Your task to perform on an android device: turn pop-ups on in chrome Image 0: 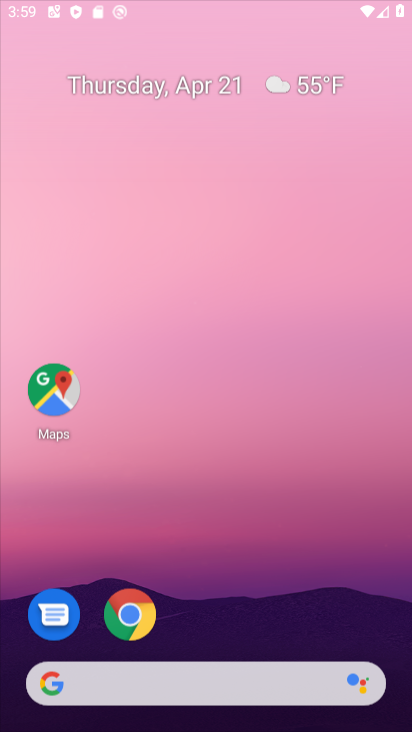
Step 0: drag from (209, 444) to (212, 15)
Your task to perform on an android device: turn pop-ups on in chrome Image 1: 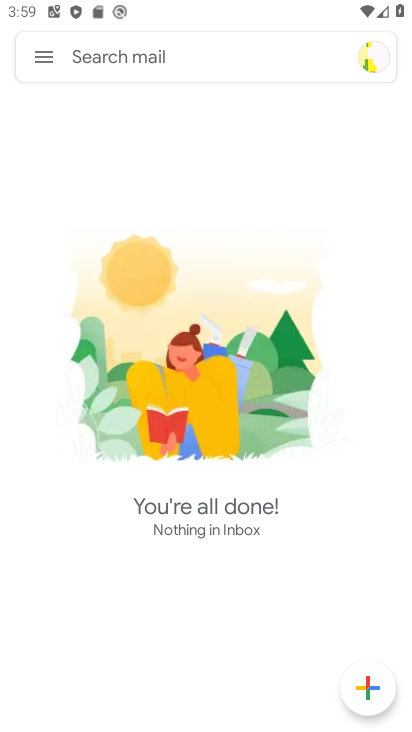
Step 1: press back button
Your task to perform on an android device: turn pop-ups on in chrome Image 2: 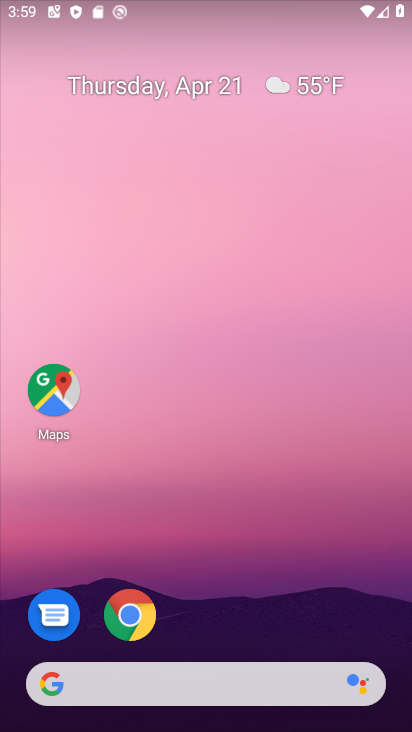
Step 2: drag from (236, 577) to (221, 24)
Your task to perform on an android device: turn pop-ups on in chrome Image 3: 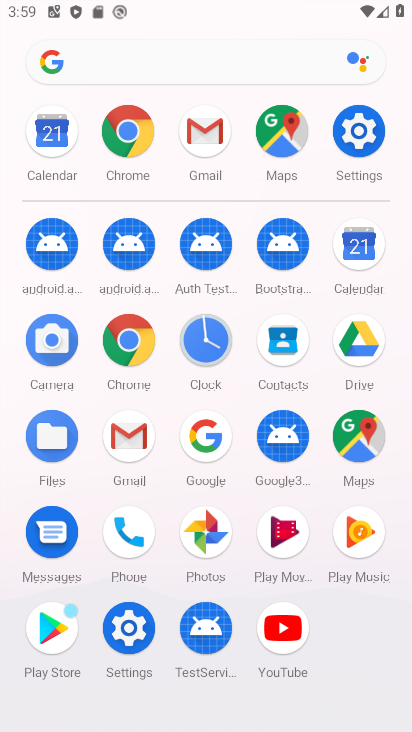
Step 3: click (129, 129)
Your task to perform on an android device: turn pop-ups on in chrome Image 4: 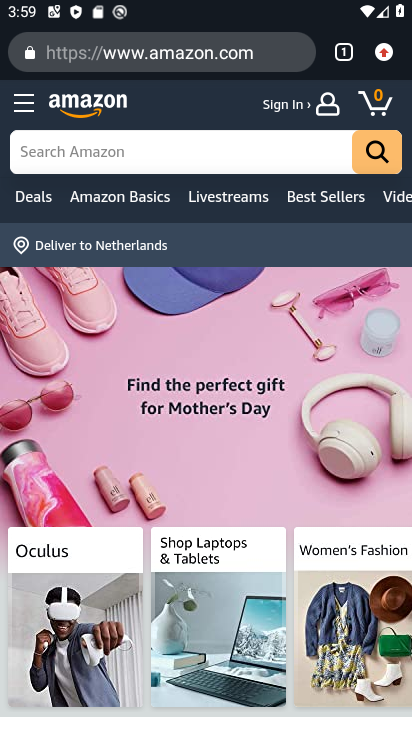
Step 4: drag from (384, 51) to (202, 655)
Your task to perform on an android device: turn pop-ups on in chrome Image 5: 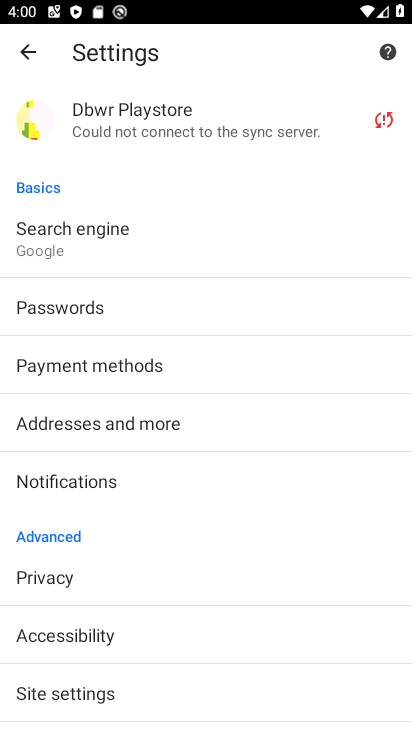
Step 5: drag from (186, 492) to (222, 211)
Your task to perform on an android device: turn pop-ups on in chrome Image 6: 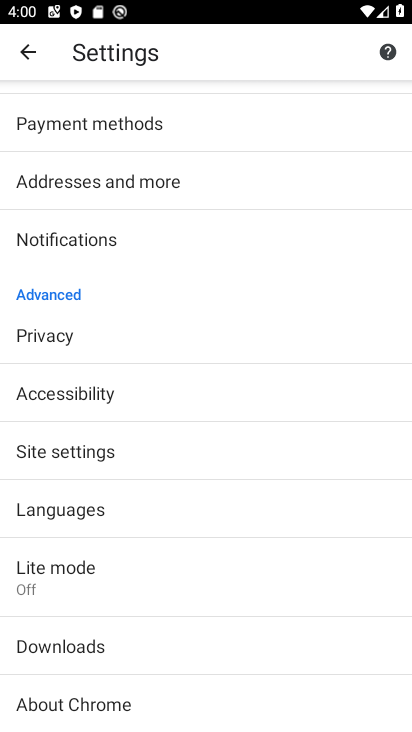
Step 6: drag from (221, 328) to (259, 359)
Your task to perform on an android device: turn pop-ups on in chrome Image 7: 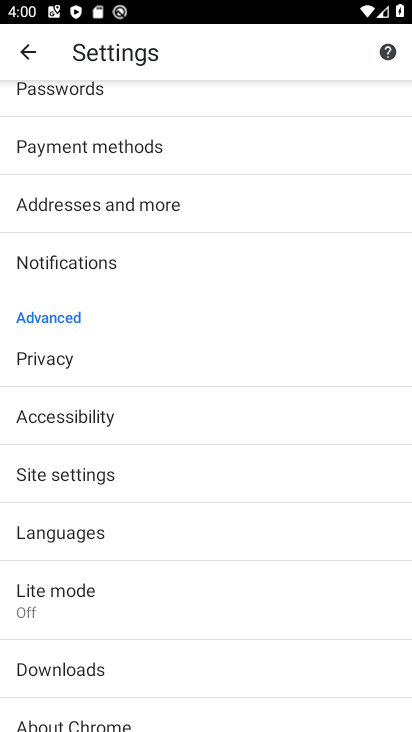
Step 7: click (133, 484)
Your task to perform on an android device: turn pop-ups on in chrome Image 8: 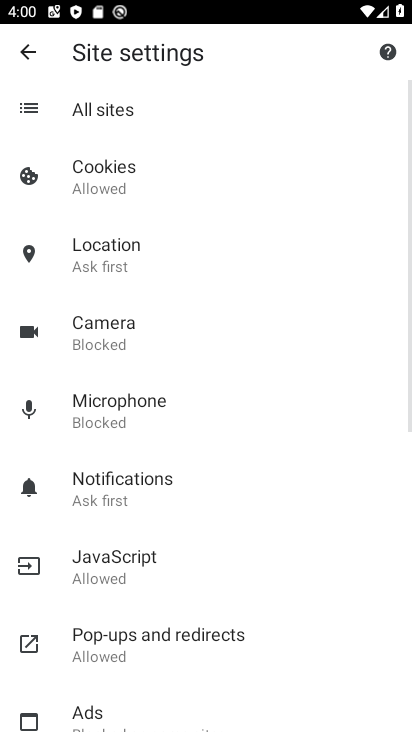
Step 8: drag from (251, 487) to (263, 229)
Your task to perform on an android device: turn pop-ups on in chrome Image 9: 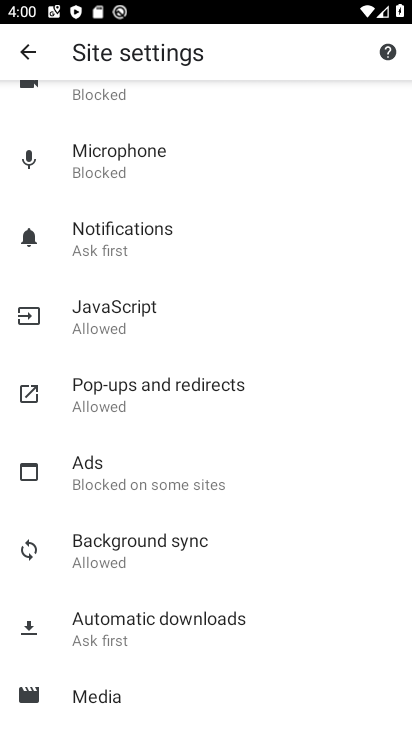
Step 9: click (161, 390)
Your task to perform on an android device: turn pop-ups on in chrome Image 10: 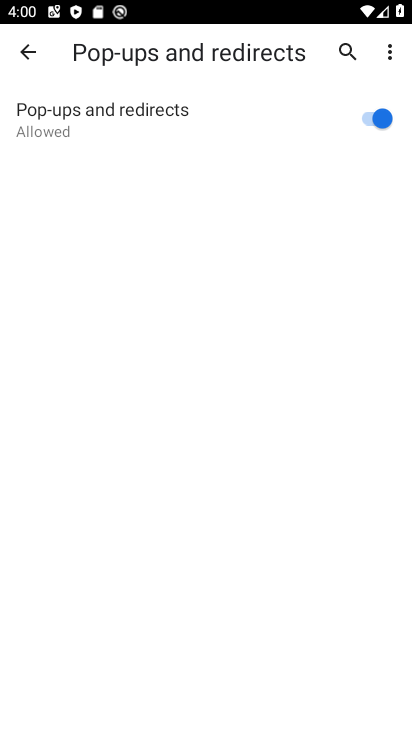
Step 10: task complete